Your task to perform on an android device: turn on the 12-hour format for clock Image 0: 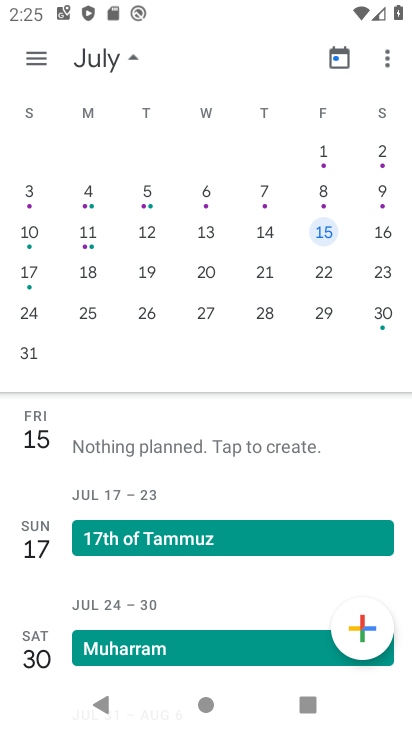
Step 0: press home button
Your task to perform on an android device: turn on the 12-hour format for clock Image 1: 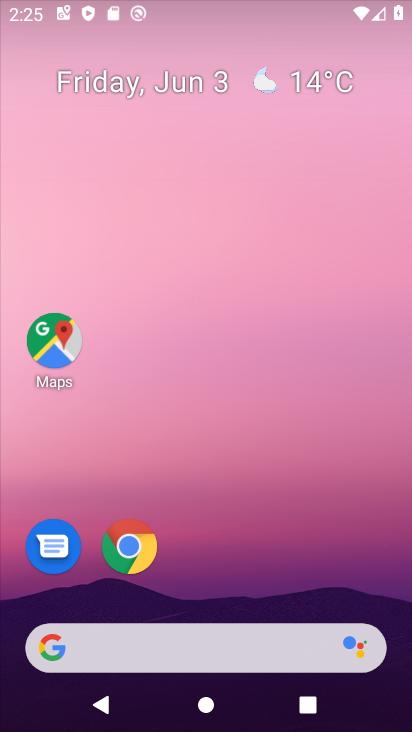
Step 1: drag from (316, 556) to (325, 88)
Your task to perform on an android device: turn on the 12-hour format for clock Image 2: 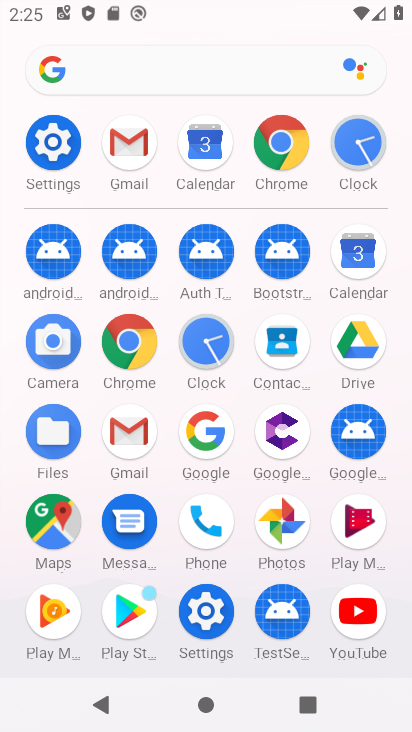
Step 2: click (200, 344)
Your task to perform on an android device: turn on the 12-hour format for clock Image 3: 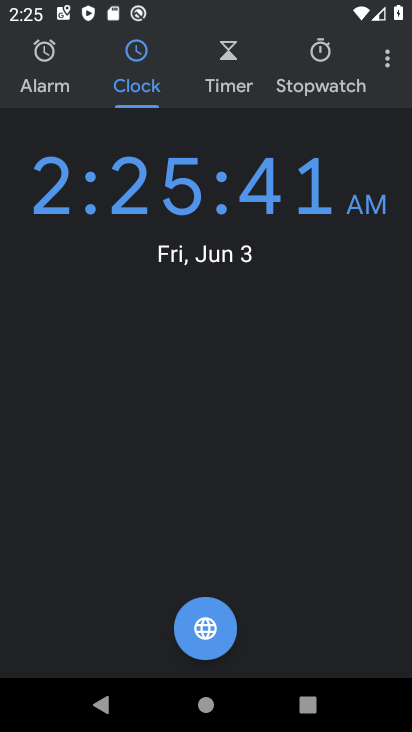
Step 3: click (394, 75)
Your task to perform on an android device: turn on the 12-hour format for clock Image 4: 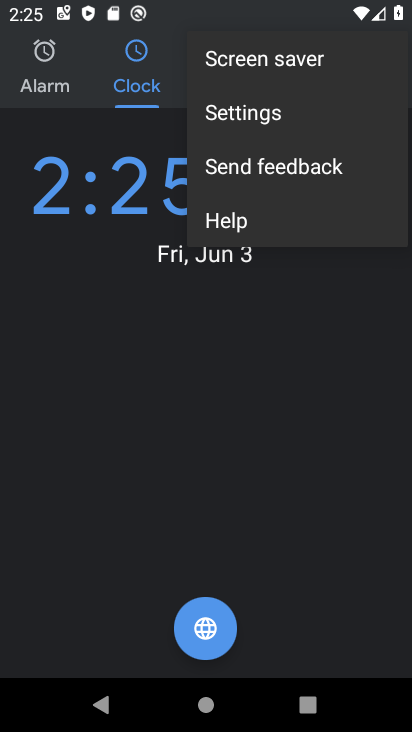
Step 4: click (261, 126)
Your task to perform on an android device: turn on the 12-hour format for clock Image 5: 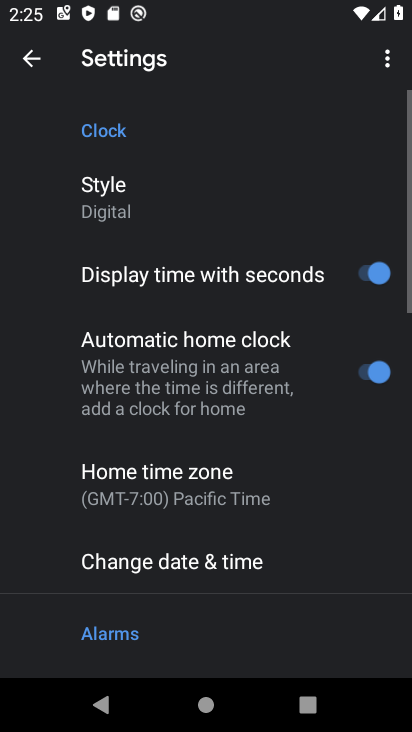
Step 5: drag from (242, 552) to (325, 78)
Your task to perform on an android device: turn on the 12-hour format for clock Image 6: 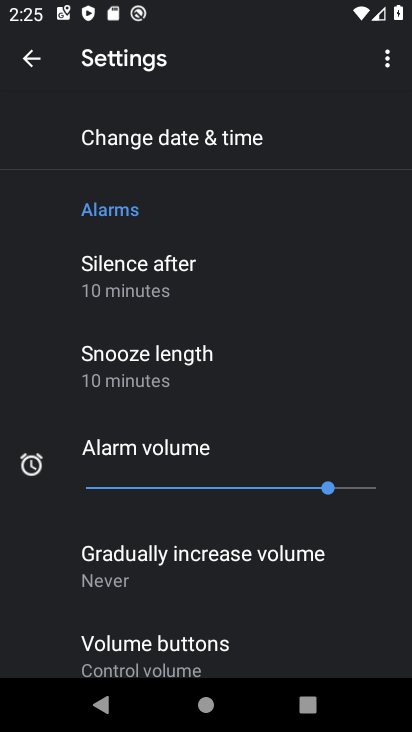
Step 6: click (150, 158)
Your task to perform on an android device: turn on the 12-hour format for clock Image 7: 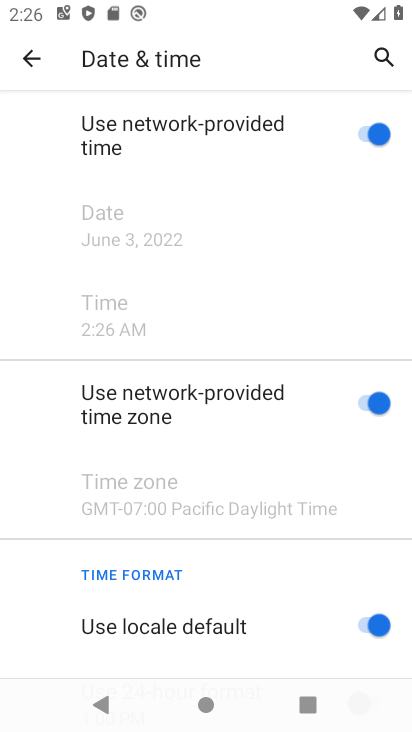
Step 7: task complete